Your task to perform on an android device: Turn off the flashlight Image 0: 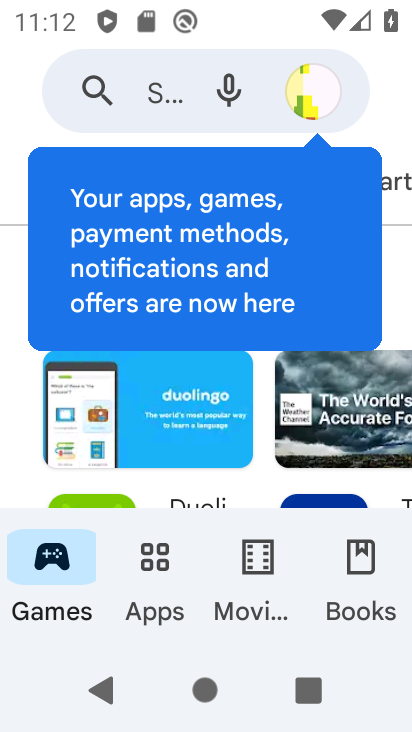
Step 0: press home button
Your task to perform on an android device: Turn off the flashlight Image 1: 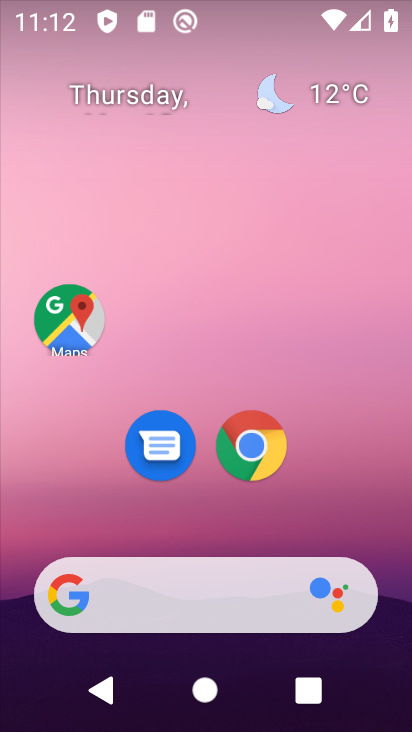
Step 1: task complete